Your task to perform on an android device: set the timer Image 0: 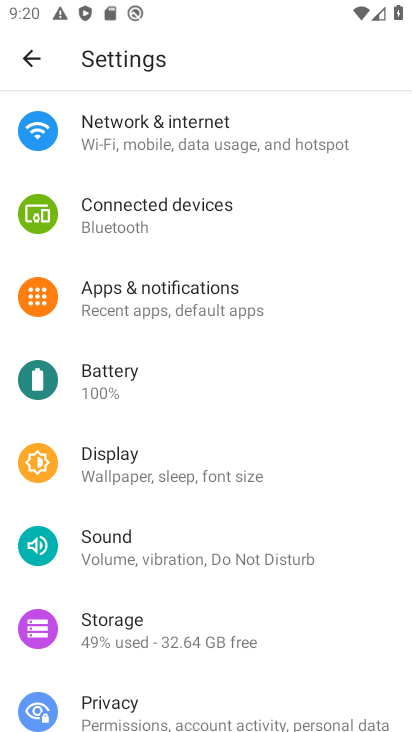
Step 0: drag from (187, 496) to (197, 242)
Your task to perform on an android device: set the timer Image 1: 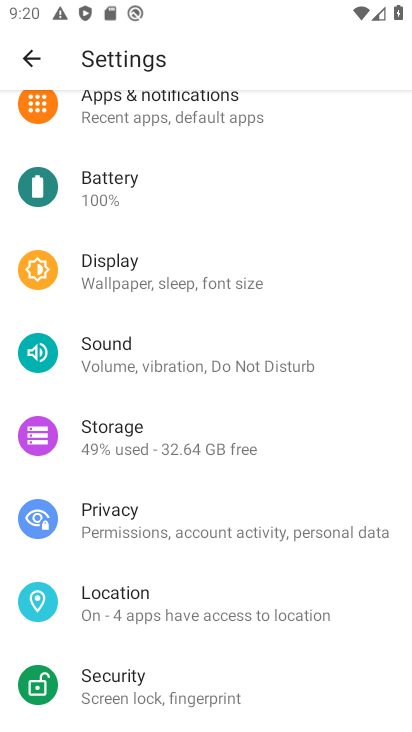
Step 1: press home button
Your task to perform on an android device: set the timer Image 2: 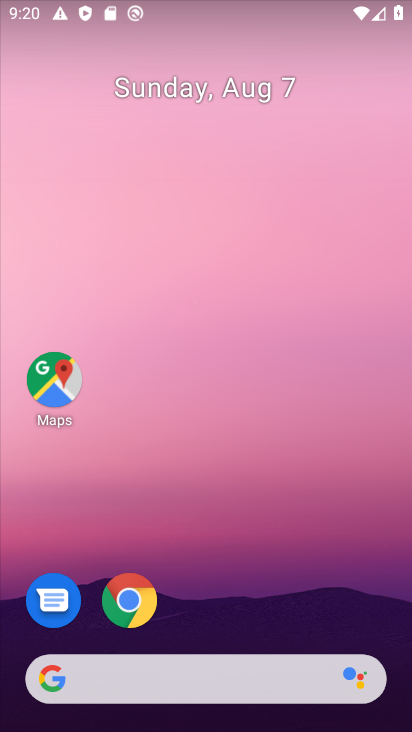
Step 2: drag from (191, 628) to (281, 40)
Your task to perform on an android device: set the timer Image 3: 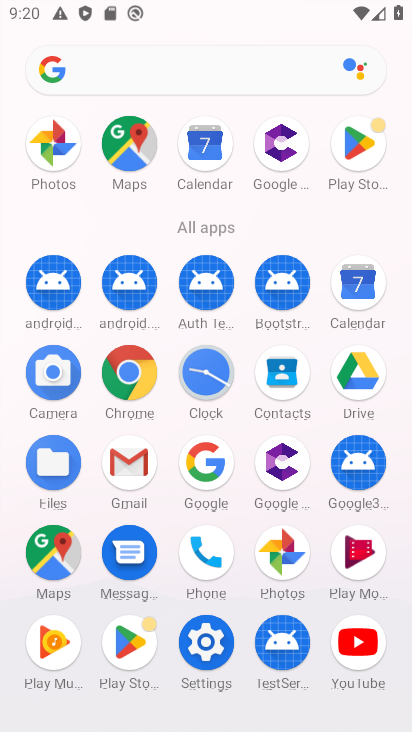
Step 3: click (209, 374)
Your task to perform on an android device: set the timer Image 4: 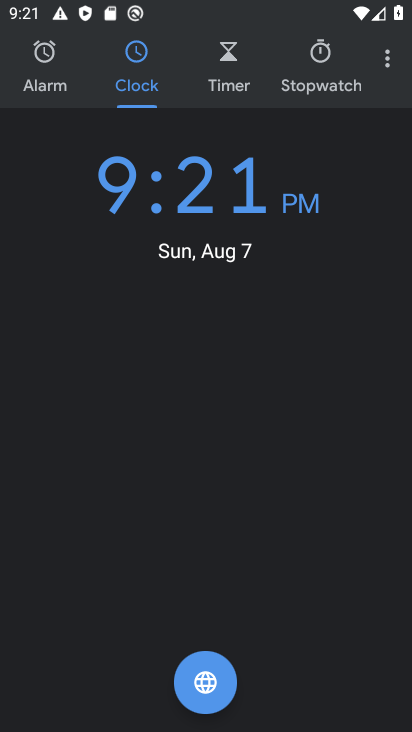
Step 4: click (231, 77)
Your task to perform on an android device: set the timer Image 5: 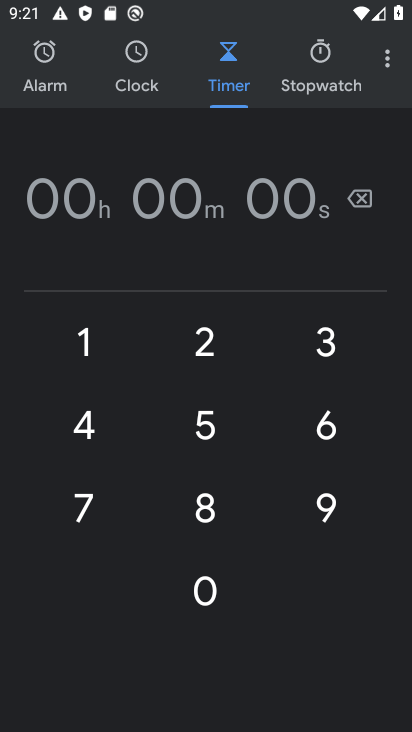
Step 5: click (84, 357)
Your task to perform on an android device: set the timer Image 6: 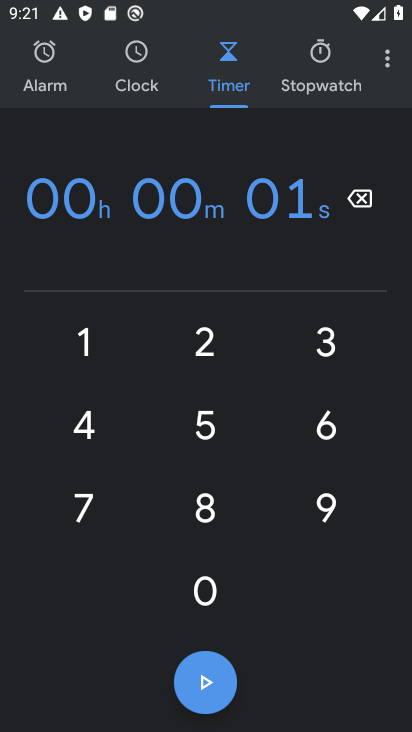
Step 6: click (219, 690)
Your task to perform on an android device: set the timer Image 7: 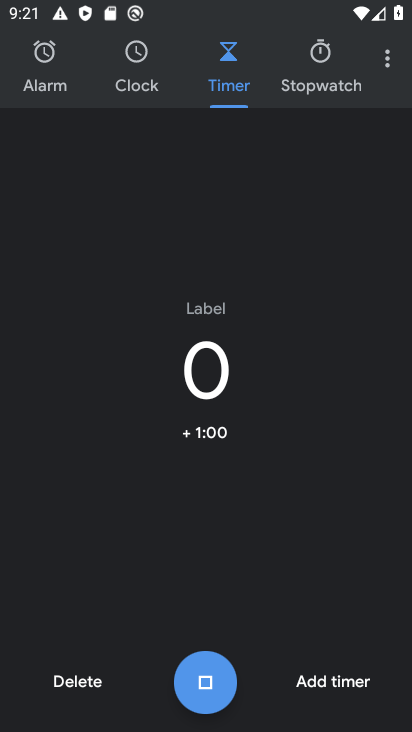
Step 7: task complete